Your task to perform on an android device: When is my next meeting? Image 0: 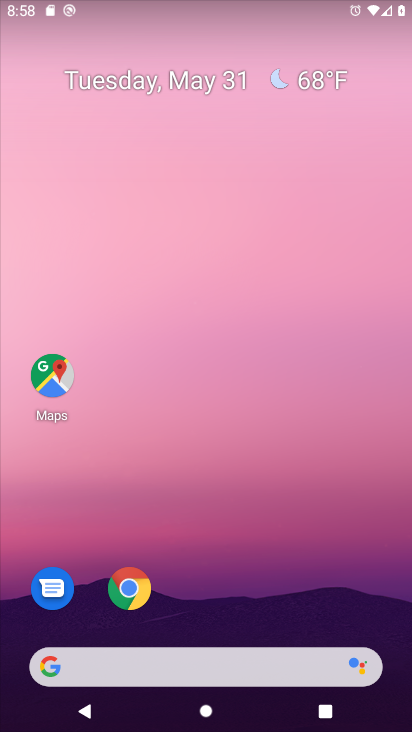
Step 0: press home button
Your task to perform on an android device: When is my next meeting? Image 1: 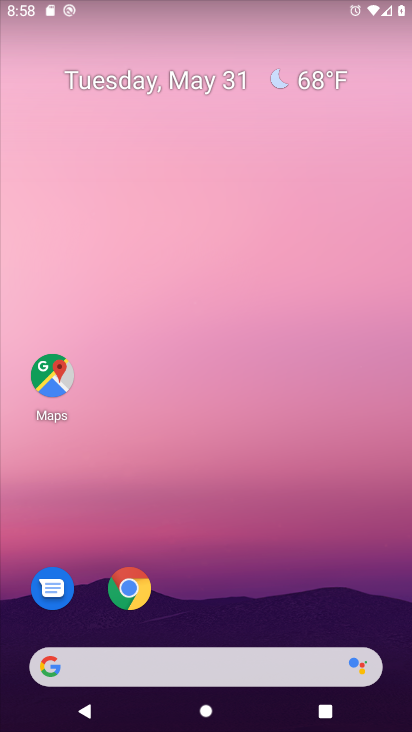
Step 1: drag from (158, 662) to (364, 118)
Your task to perform on an android device: When is my next meeting? Image 2: 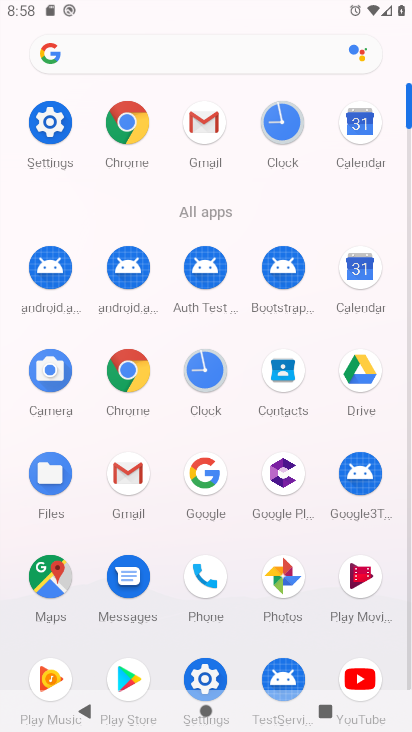
Step 2: click (367, 268)
Your task to perform on an android device: When is my next meeting? Image 3: 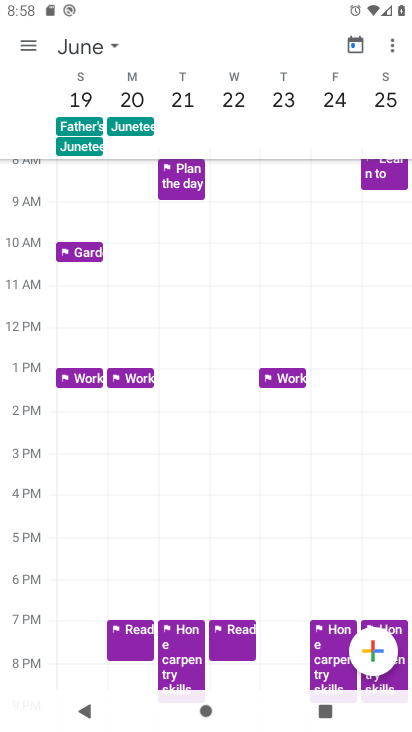
Step 3: click (72, 48)
Your task to perform on an android device: When is my next meeting? Image 4: 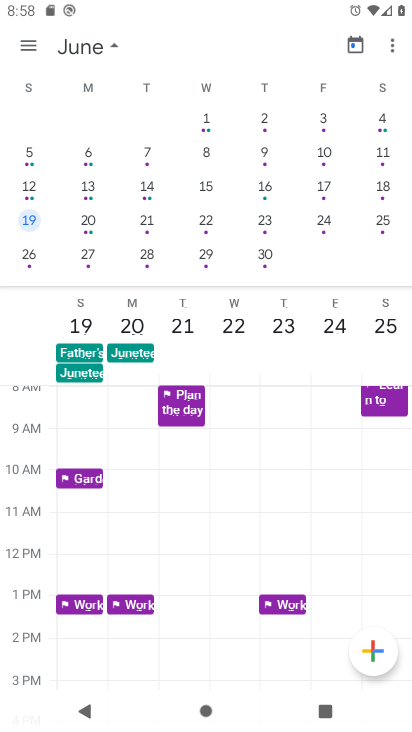
Step 4: drag from (61, 184) to (410, 241)
Your task to perform on an android device: When is my next meeting? Image 5: 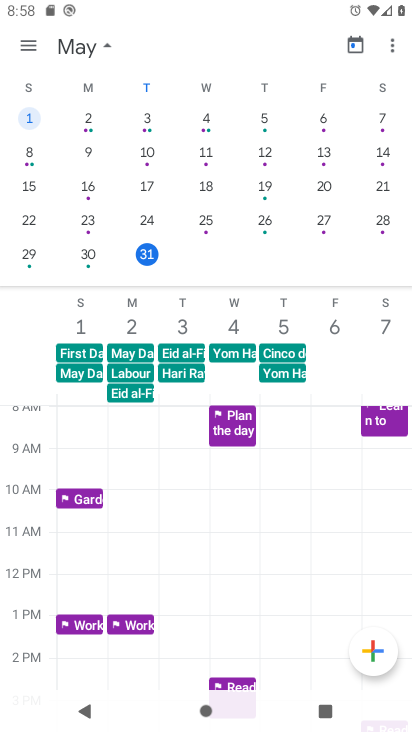
Step 5: drag from (64, 148) to (399, 195)
Your task to perform on an android device: When is my next meeting? Image 6: 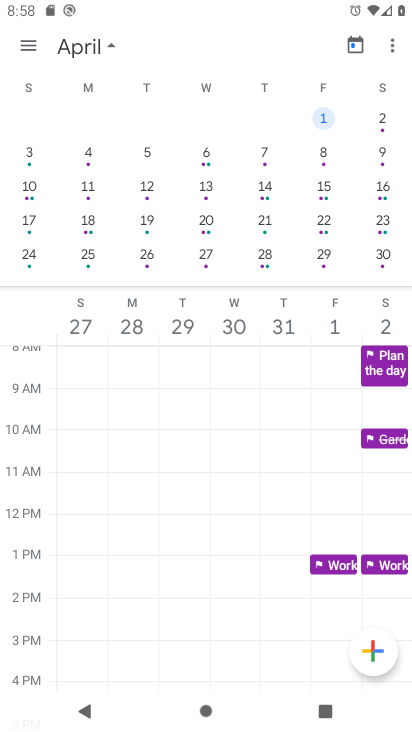
Step 6: drag from (330, 208) to (6, 241)
Your task to perform on an android device: When is my next meeting? Image 7: 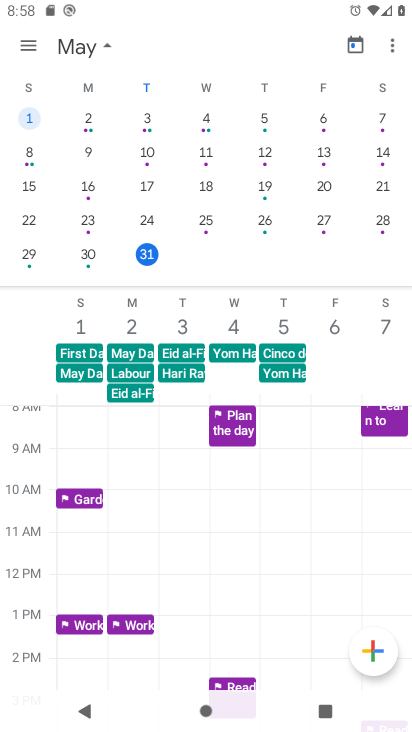
Step 7: click (242, 258)
Your task to perform on an android device: When is my next meeting? Image 8: 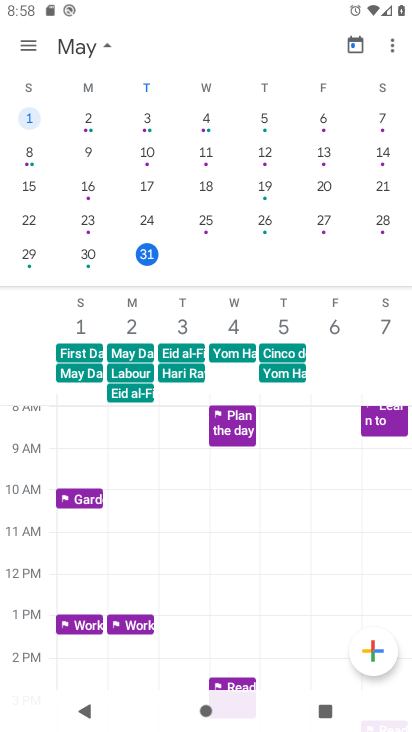
Step 8: click (153, 256)
Your task to perform on an android device: When is my next meeting? Image 9: 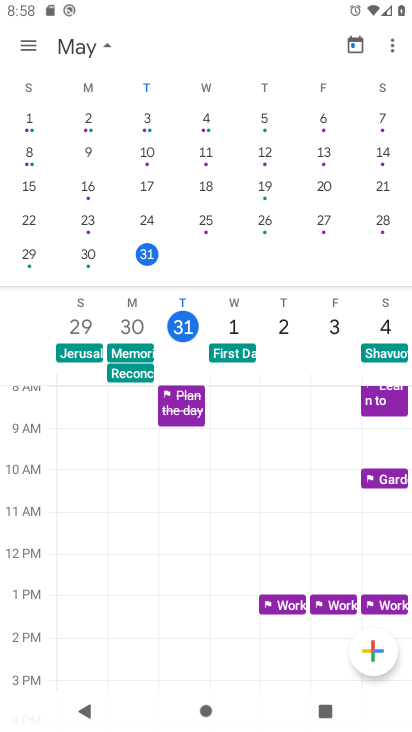
Step 9: click (27, 42)
Your task to perform on an android device: When is my next meeting? Image 10: 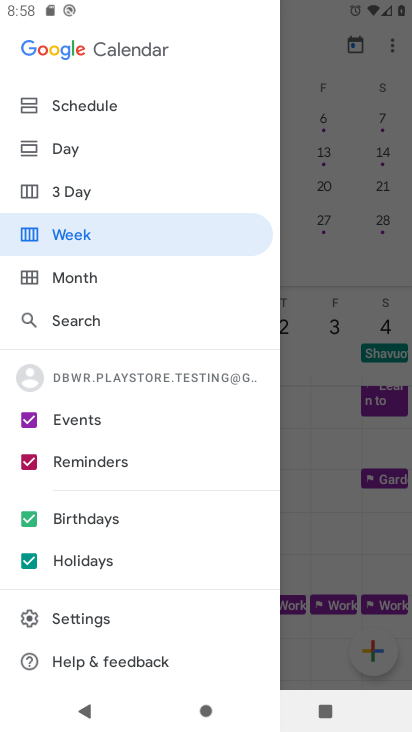
Step 10: click (82, 94)
Your task to perform on an android device: When is my next meeting? Image 11: 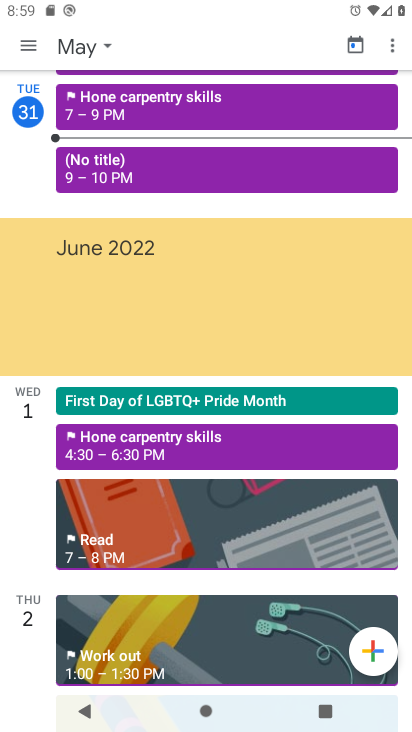
Step 11: click (171, 169)
Your task to perform on an android device: When is my next meeting? Image 12: 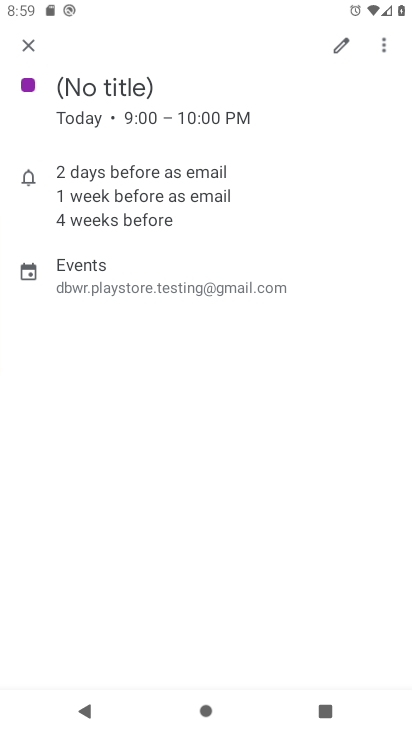
Step 12: task complete